Your task to perform on an android device: delete a single message in the gmail app Image 0: 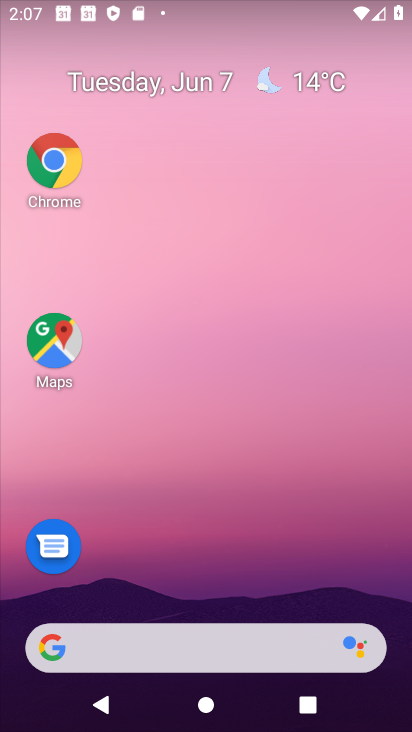
Step 0: drag from (171, 537) to (282, 100)
Your task to perform on an android device: delete a single message in the gmail app Image 1: 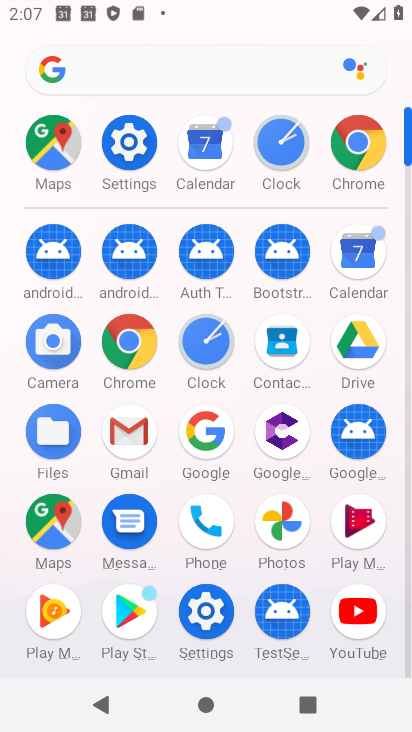
Step 1: click (139, 432)
Your task to perform on an android device: delete a single message in the gmail app Image 2: 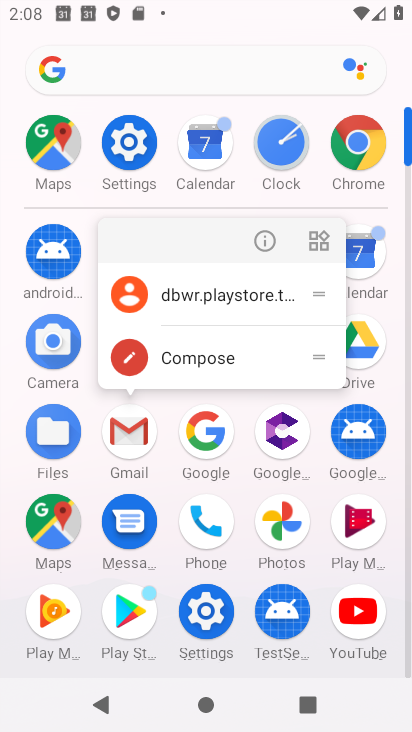
Step 2: click (265, 240)
Your task to perform on an android device: delete a single message in the gmail app Image 3: 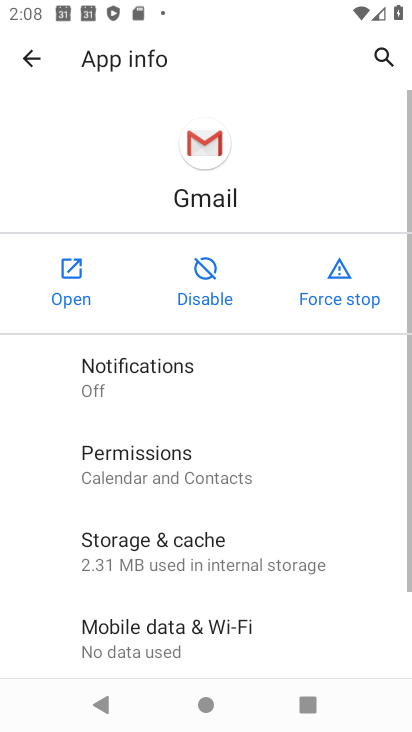
Step 3: click (58, 311)
Your task to perform on an android device: delete a single message in the gmail app Image 4: 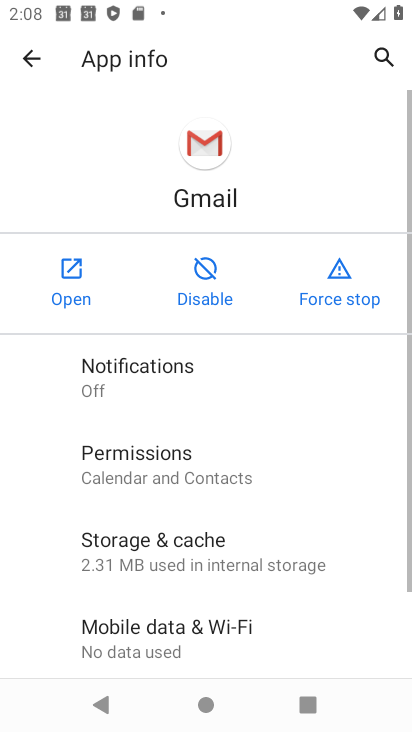
Step 4: click (58, 311)
Your task to perform on an android device: delete a single message in the gmail app Image 5: 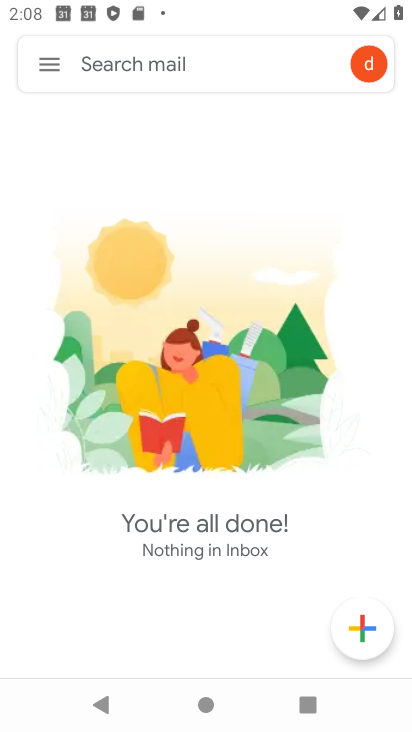
Step 5: task complete